Your task to perform on an android device: What is the capital of England? Image 0: 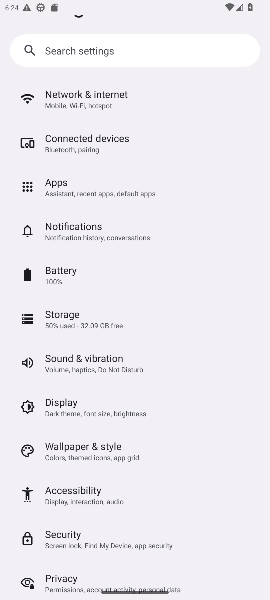
Step 0: press back button
Your task to perform on an android device: What is the capital of England? Image 1: 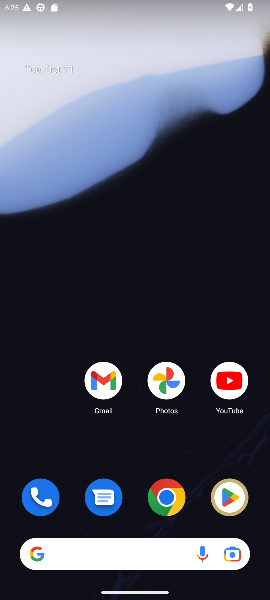
Step 1: type "capital of England"
Your task to perform on an android device: What is the capital of England? Image 2: 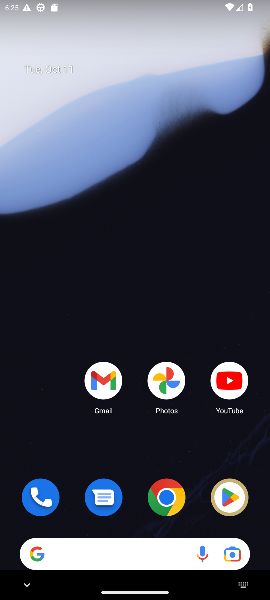
Step 2: type "capital of England"
Your task to perform on an android device: What is the capital of England? Image 3: 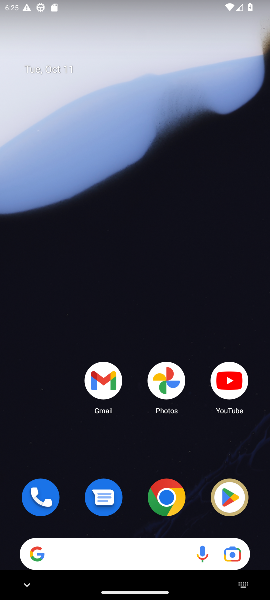
Step 3: type ""
Your task to perform on an android device: What is the capital of England? Image 4: 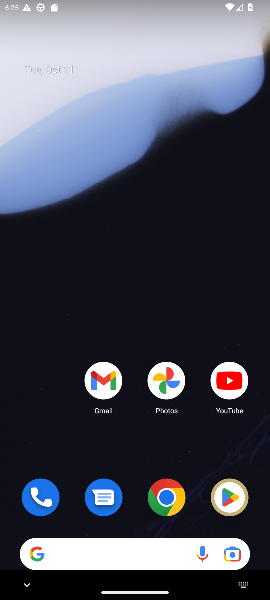
Step 4: click (175, 494)
Your task to perform on an android device: What is the capital of England? Image 5: 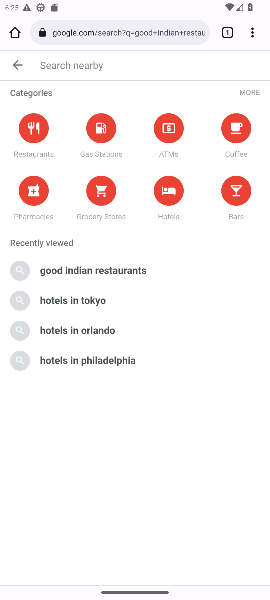
Step 5: click (121, 32)
Your task to perform on an android device: What is the capital of England? Image 6: 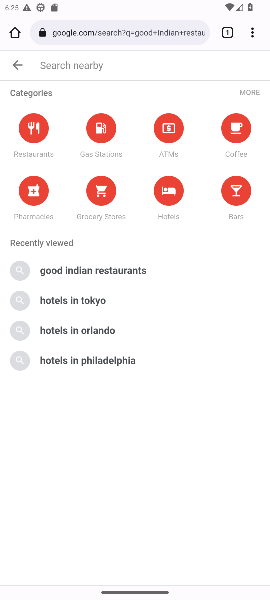
Step 6: click (121, 30)
Your task to perform on an android device: What is the capital of England? Image 7: 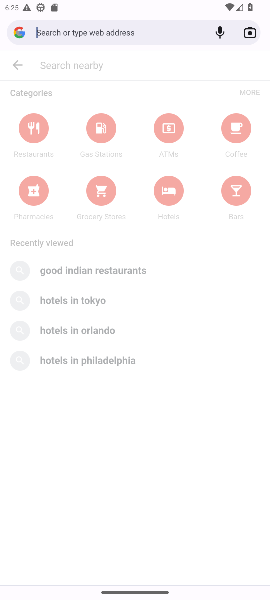
Step 7: click (121, 30)
Your task to perform on an android device: What is the capital of England? Image 8: 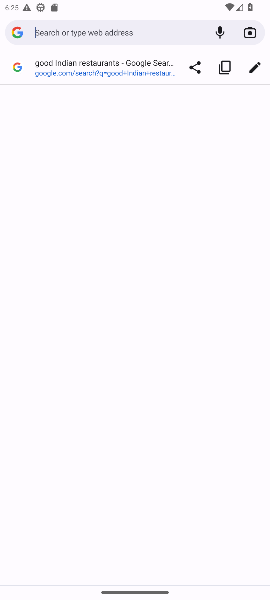
Step 8: click (121, 30)
Your task to perform on an android device: What is the capital of England? Image 9: 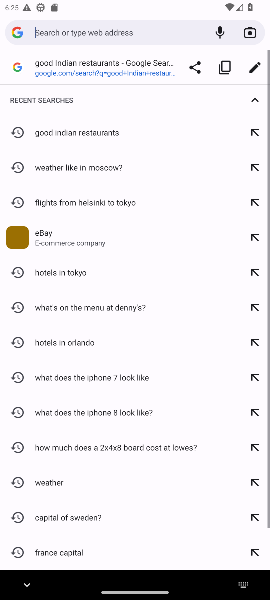
Step 9: click (121, 30)
Your task to perform on an android device: What is the capital of England? Image 10: 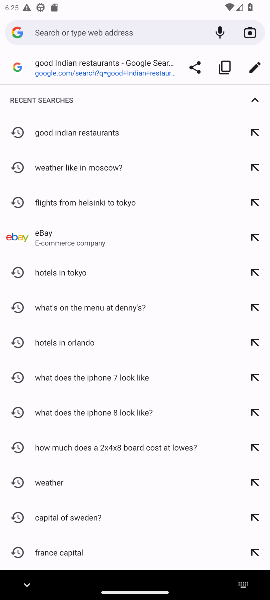
Step 10: type "capital of England"
Your task to perform on an android device: What is the capital of England? Image 11: 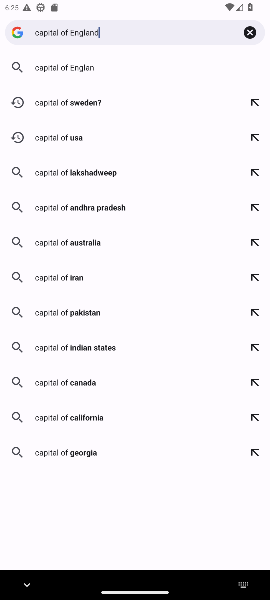
Step 11: type ""
Your task to perform on an android device: What is the capital of England? Image 12: 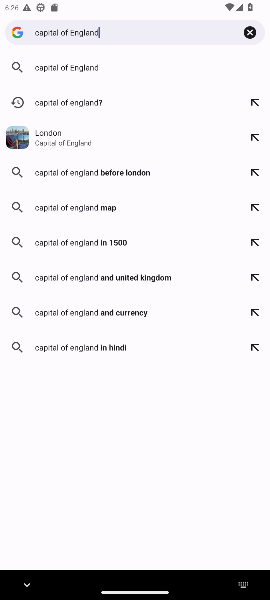
Step 12: click (76, 73)
Your task to perform on an android device: What is the capital of England? Image 13: 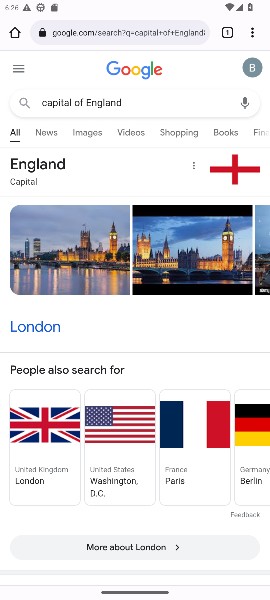
Step 13: drag from (170, 301) to (177, 159)
Your task to perform on an android device: What is the capital of England? Image 14: 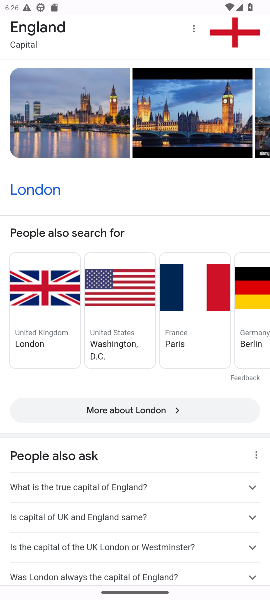
Step 14: click (13, 415)
Your task to perform on an android device: What is the capital of England? Image 15: 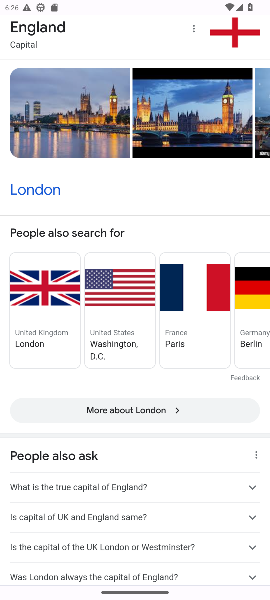
Step 15: task complete